Your task to perform on an android device: turn on airplane mode Image 0: 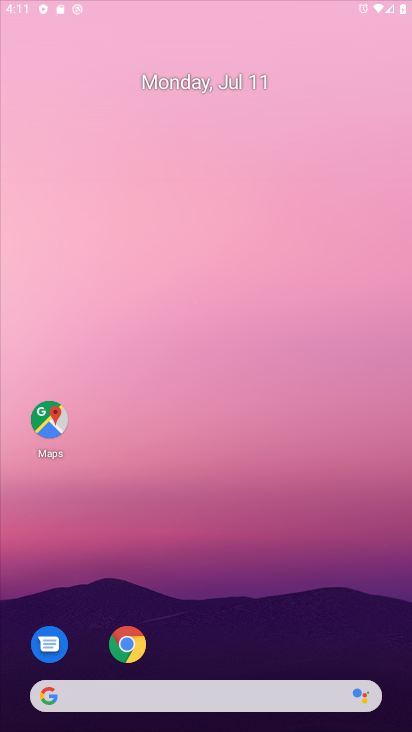
Step 0: click (201, 31)
Your task to perform on an android device: turn on airplane mode Image 1: 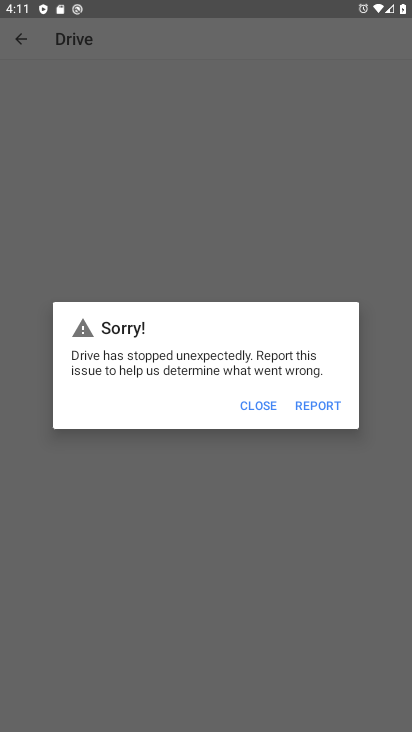
Step 1: press home button
Your task to perform on an android device: turn on airplane mode Image 2: 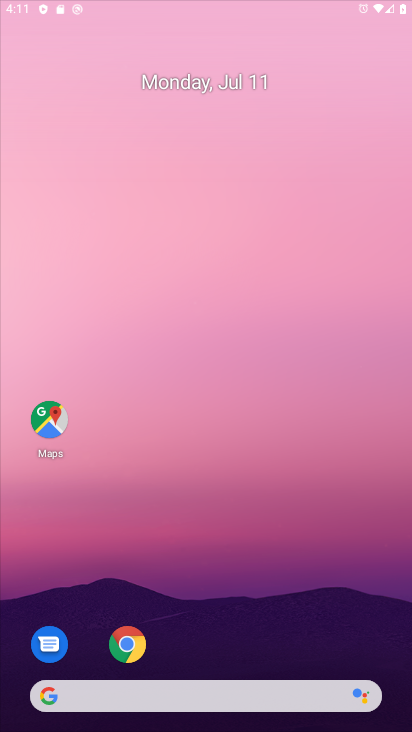
Step 2: drag from (278, 9) to (311, 624)
Your task to perform on an android device: turn on airplane mode Image 3: 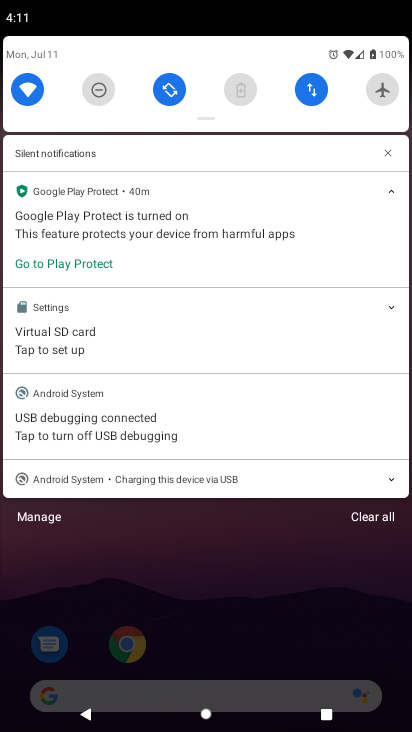
Step 3: drag from (263, 111) to (250, 358)
Your task to perform on an android device: turn on airplane mode Image 4: 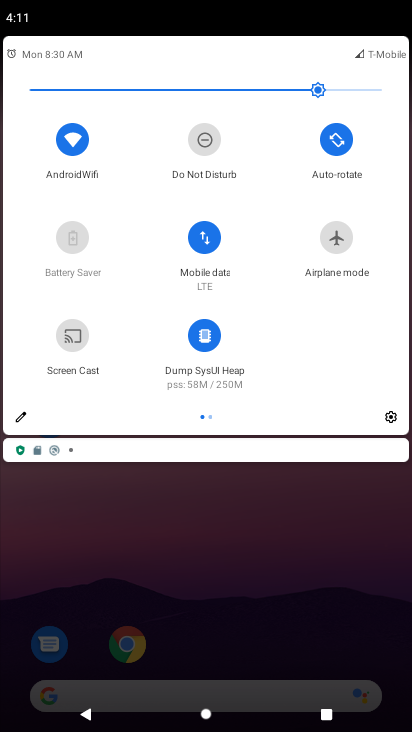
Step 4: click (323, 228)
Your task to perform on an android device: turn on airplane mode Image 5: 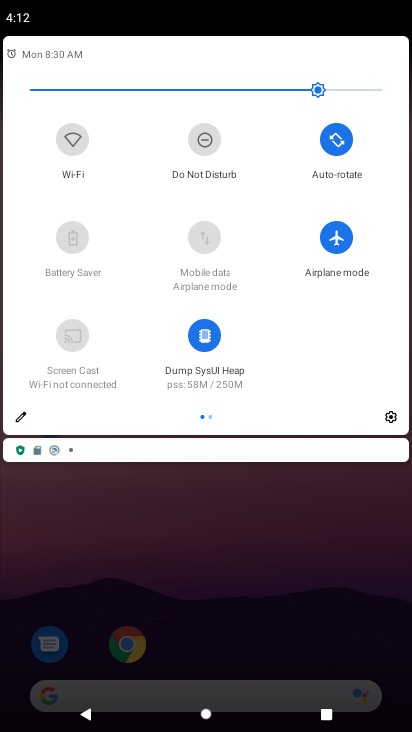
Step 5: task complete